Your task to perform on an android device: Toggle the flashlight Image 0: 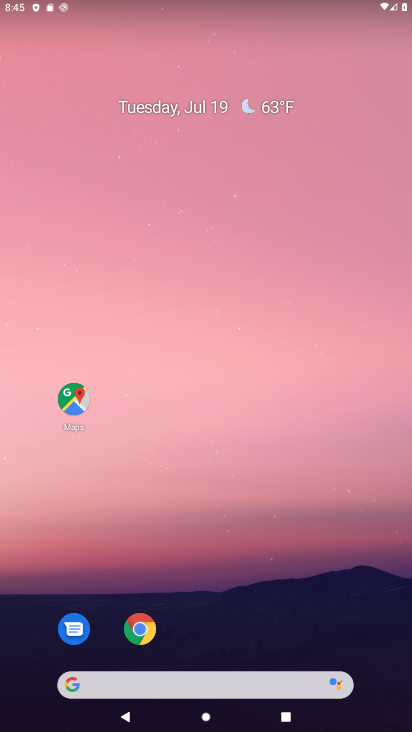
Step 0: press home button
Your task to perform on an android device: Toggle the flashlight Image 1: 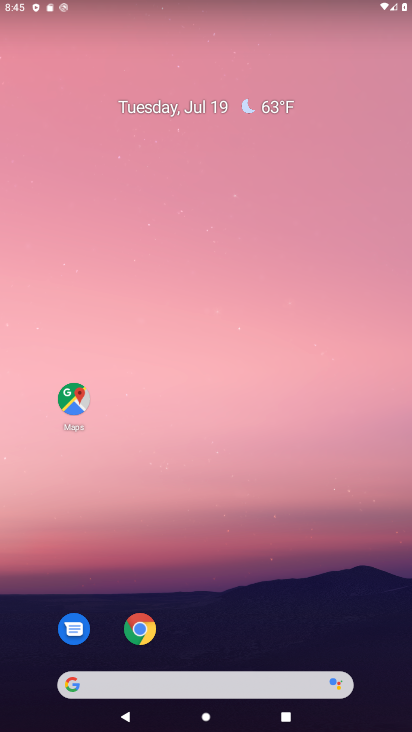
Step 1: drag from (221, 648) to (232, 32)
Your task to perform on an android device: Toggle the flashlight Image 2: 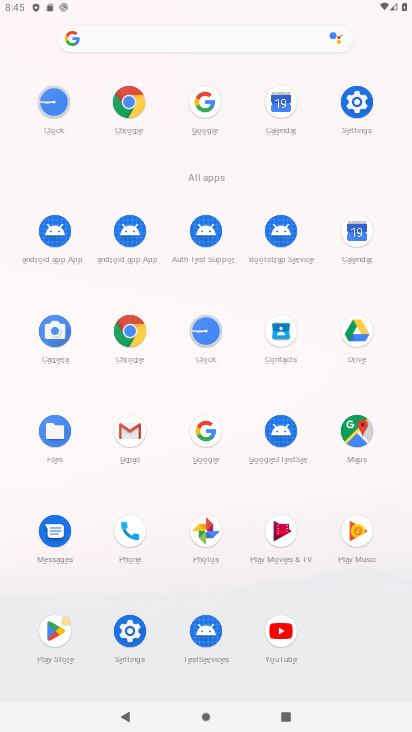
Step 2: click (351, 101)
Your task to perform on an android device: Toggle the flashlight Image 3: 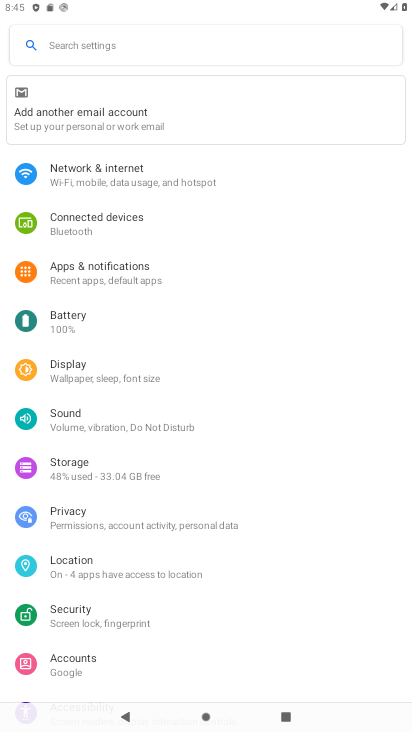
Step 3: click (94, 41)
Your task to perform on an android device: Toggle the flashlight Image 4: 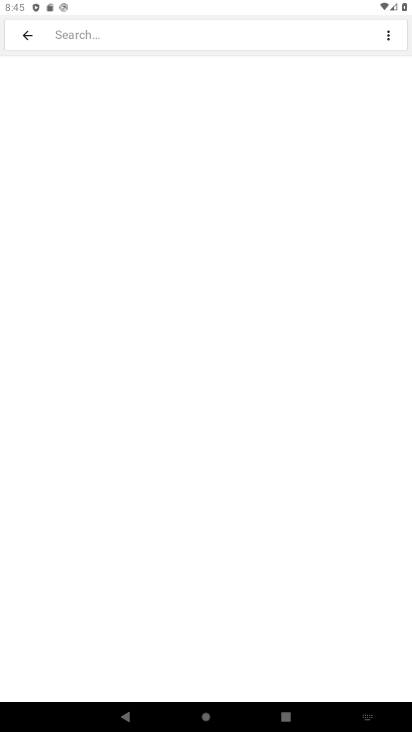
Step 4: type "flashlight"
Your task to perform on an android device: Toggle the flashlight Image 5: 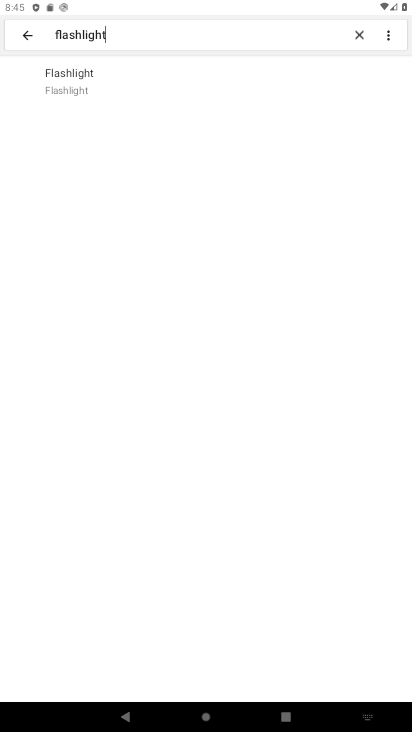
Step 5: click (98, 53)
Your task to perform on an android device: Toggle the flashlight Image 6: 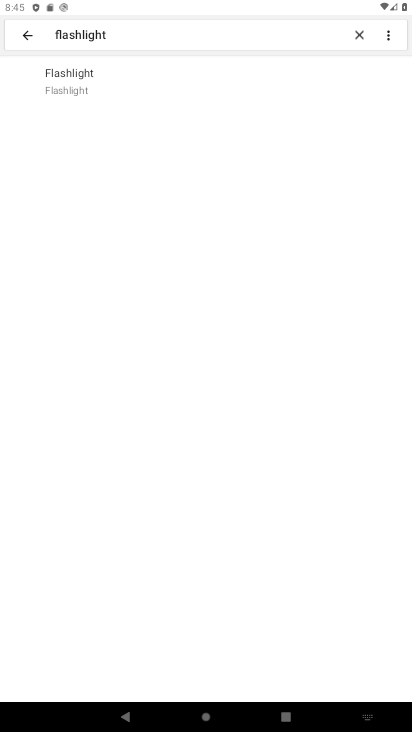
Step 6: click (92, 86)
Your task to perform on an android device: Toggle the flashlight Image 7: 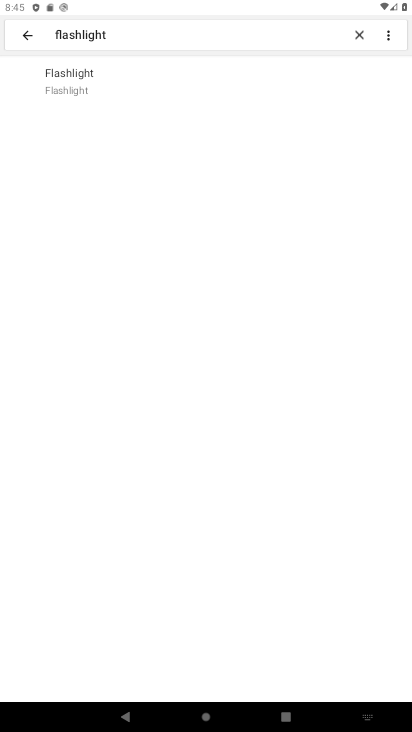
Step 7: task complete